Your task to perform on an android device: Open battery settings Image 0: 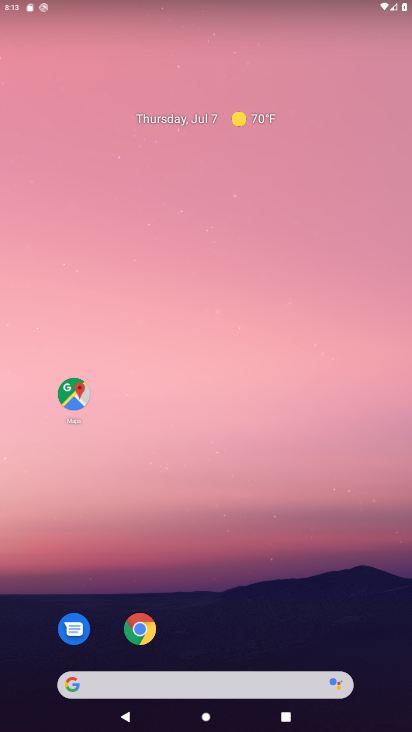
Step 0: drag from (268, 385) to (297, 172)
Your task to perform on an android device: Open battery settings Image 1: 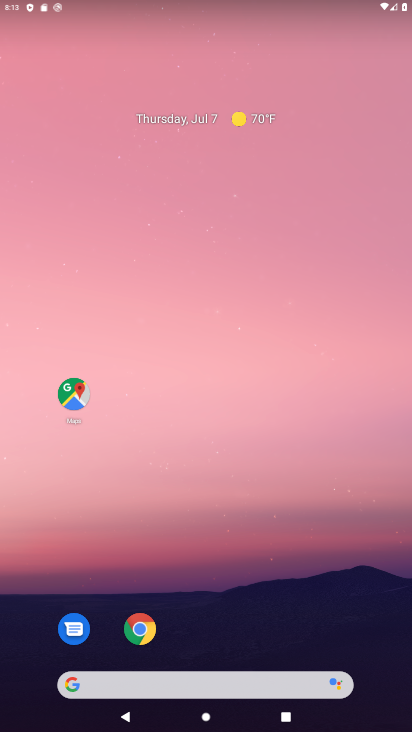
Step 1: drag from (209, 639) to (308, 131)
Your task to perform on an android device: Open battery settings Image 2: 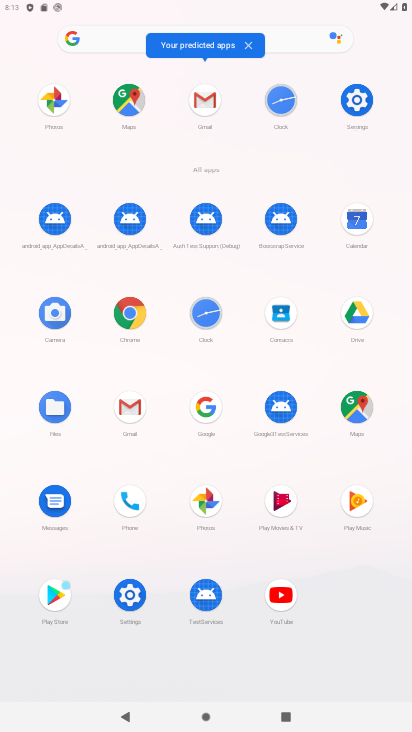
Step 2: click (138, 591)
Your task to perform on an android device: Open battery settings Image 3: 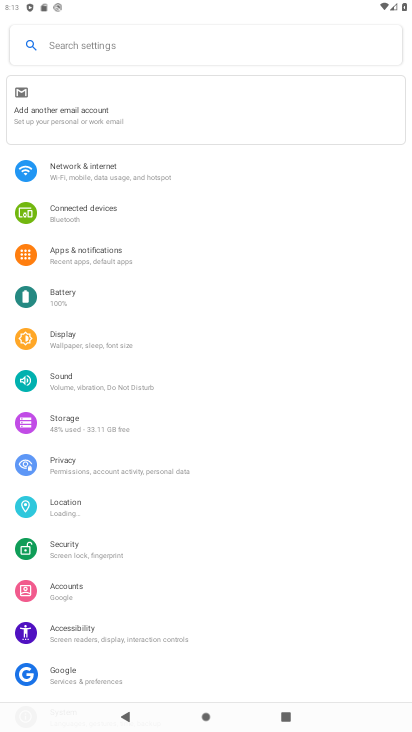
Step 3: click (113, 299)
Your task to perform on an android device: Open battery settings Image 4: 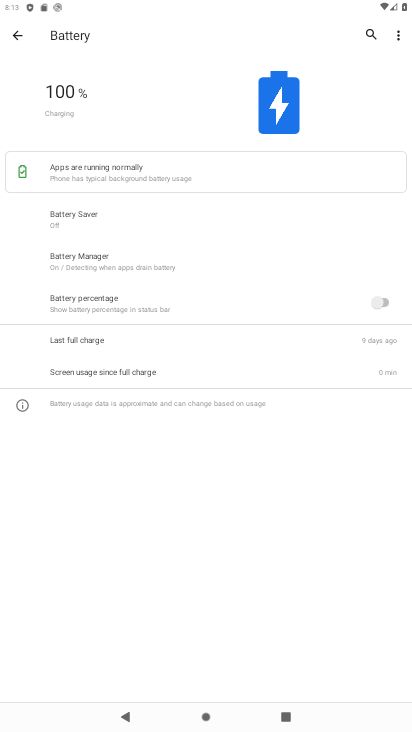
Step 4: task complete